Your task to perform on an android device: Open accessibility settings Image 0: 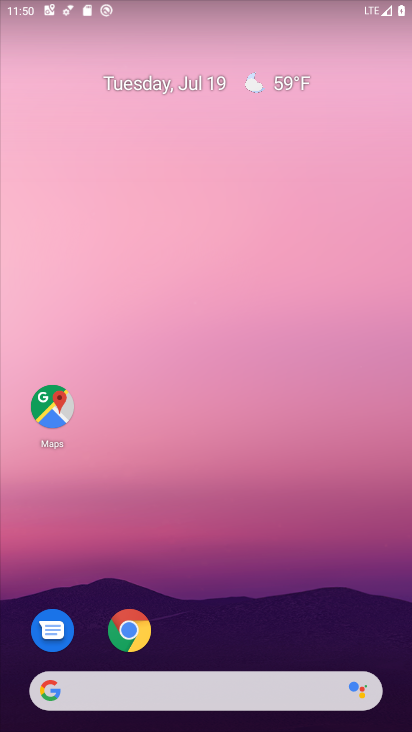
Step 0: drag from (384, 643) to (339, 173)
Your task to perform on an android device: Open accessibility settings Image 1: 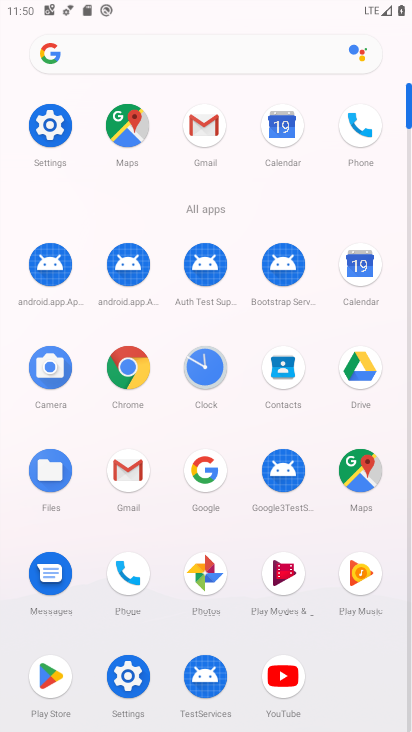
Step 1: click (128, 677)
Your task to perform on an android device: Open accessibility settings Image 2: 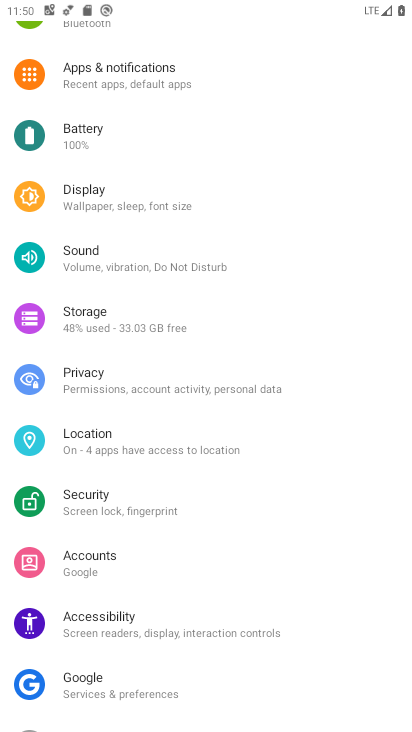
Step 2: click (102, 613)
Your task to perform on an android device: Open accessibility settings Image 3: 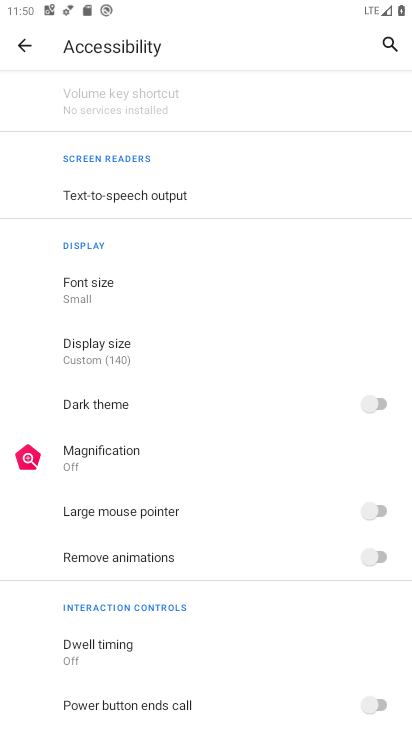
Step 3: click (102, 613)
Your task to perform on an android device: Open accessibility settings Image 4: 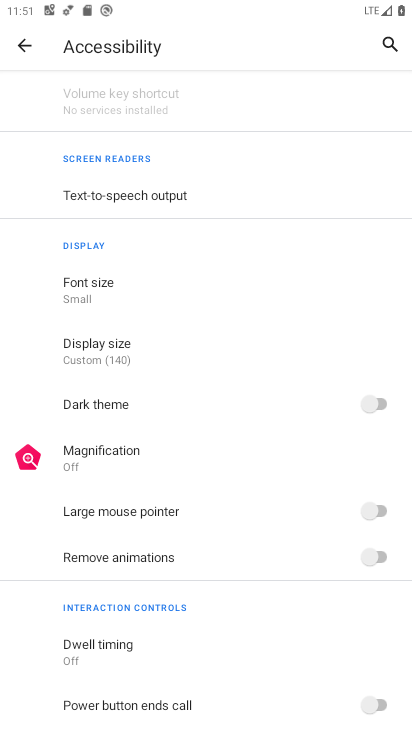
Step 4: task complete